Your task to perform on an android device: stop showing notifications on the lock screen Image 0: 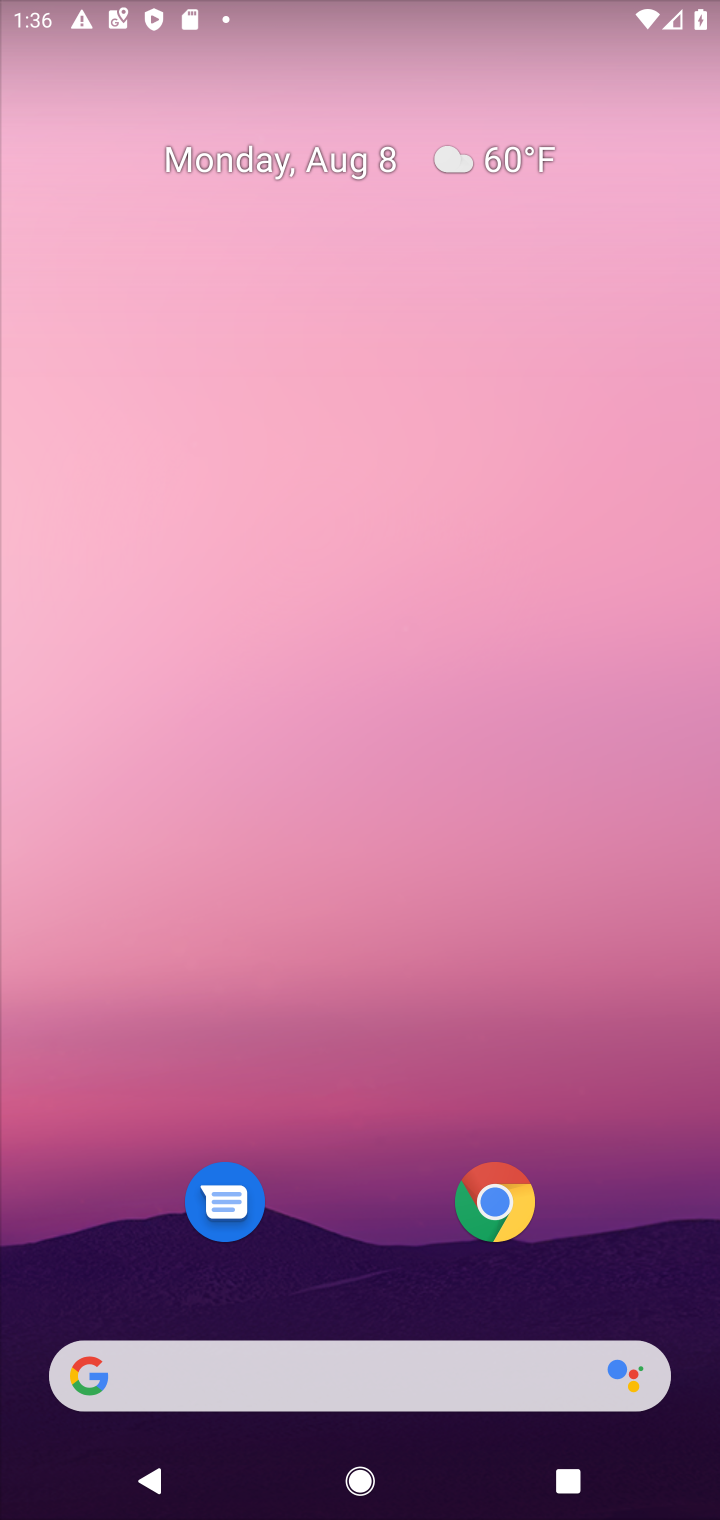
Step 0: press home button
Your task to perform on an android device: stop showing notifications on the lock screen Image 1: 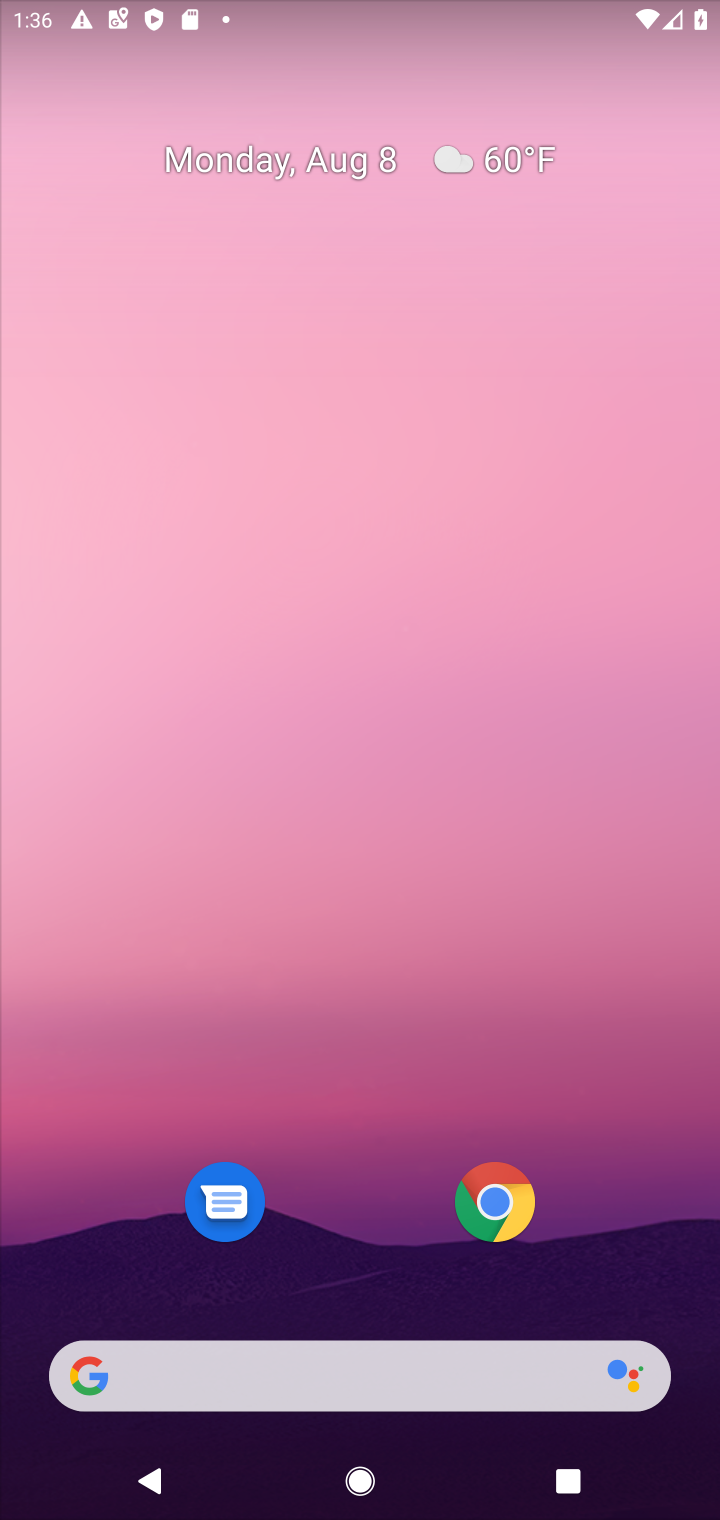
Step 1: drag from (621, 1265) to (637, 355)
Your task to perform on an android device: stop showing notifications on the lock screen Image 2: 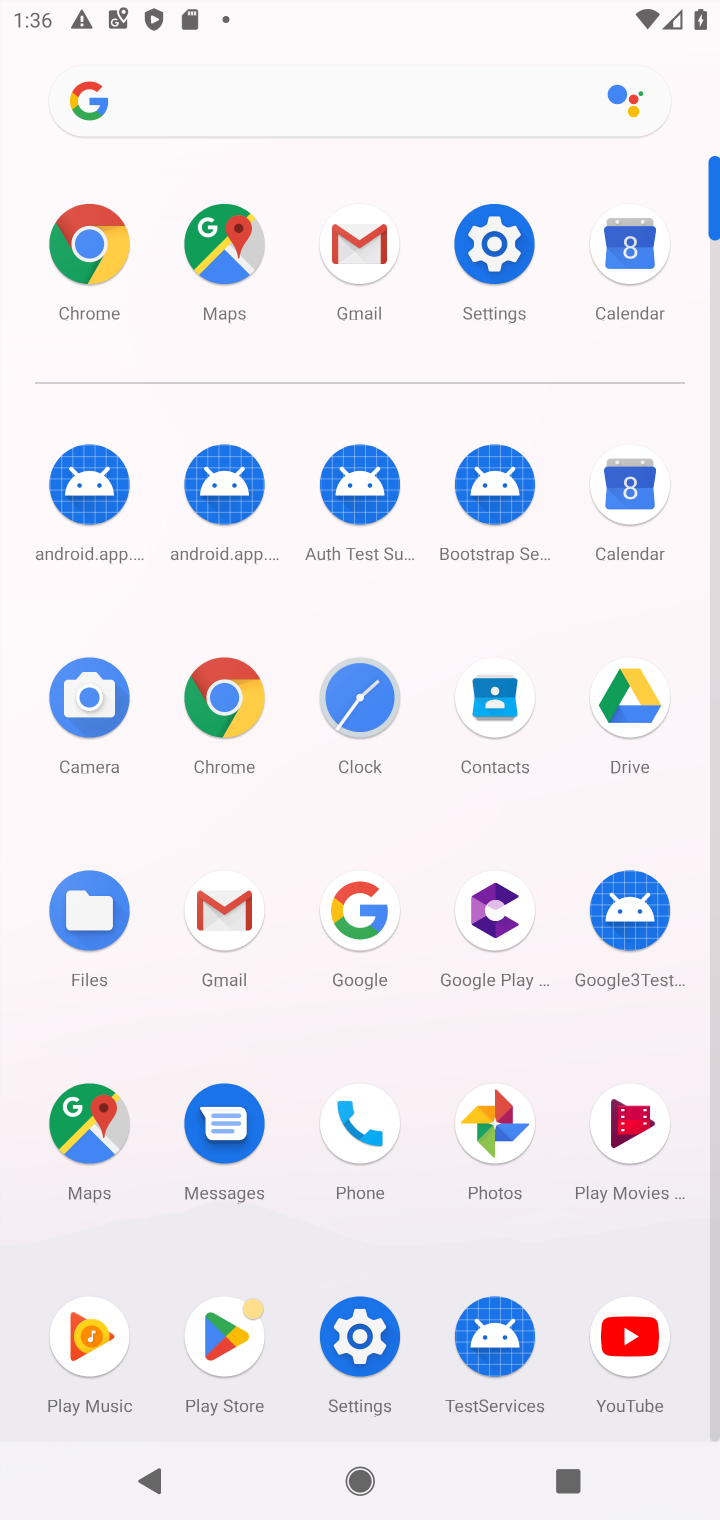
Step 2: click (503, 261)
Your task to perform on an android device: stop showing notifications on the lock screen Image 3: 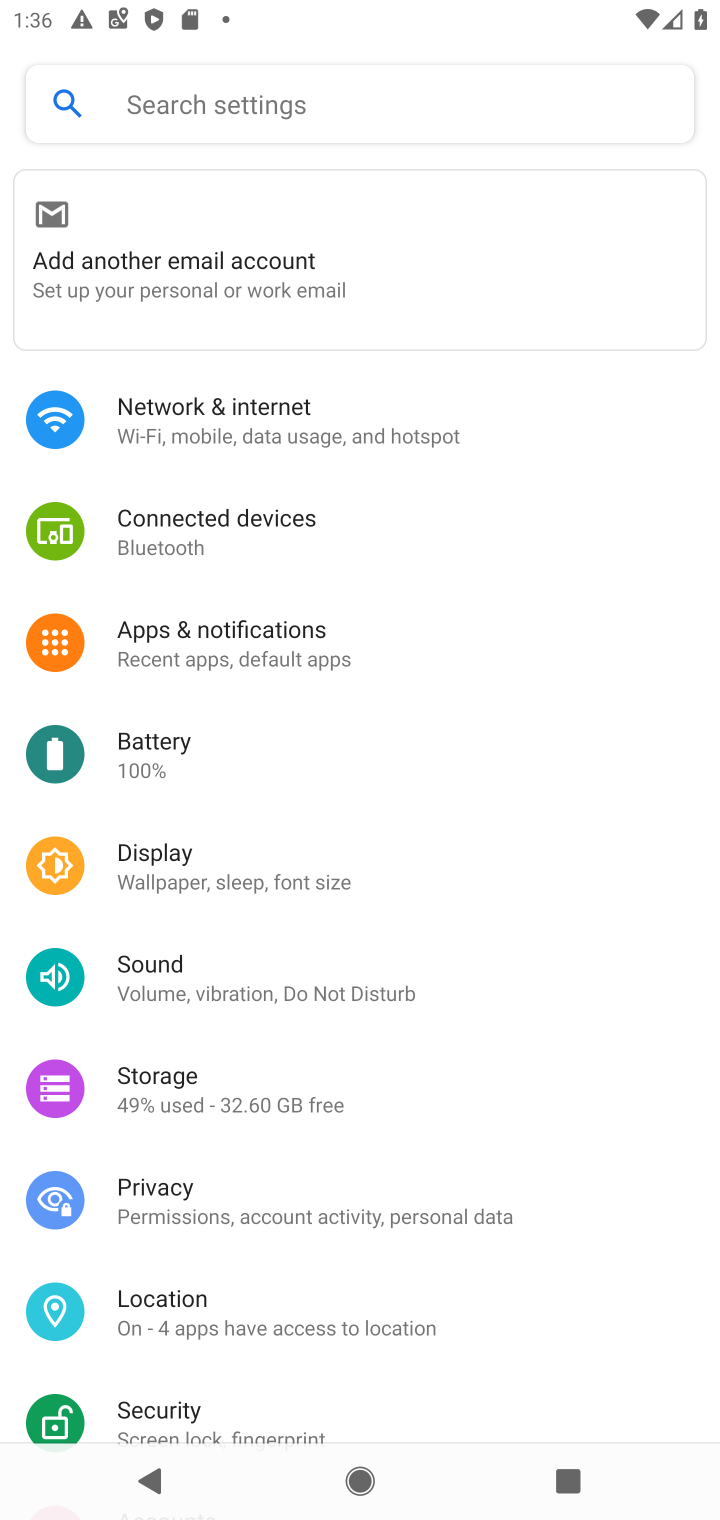
Step 3: drag from (497, 832) to (543, 411)
Your task to perform on an android device: stop showing notifications on the lock screen Image 4: 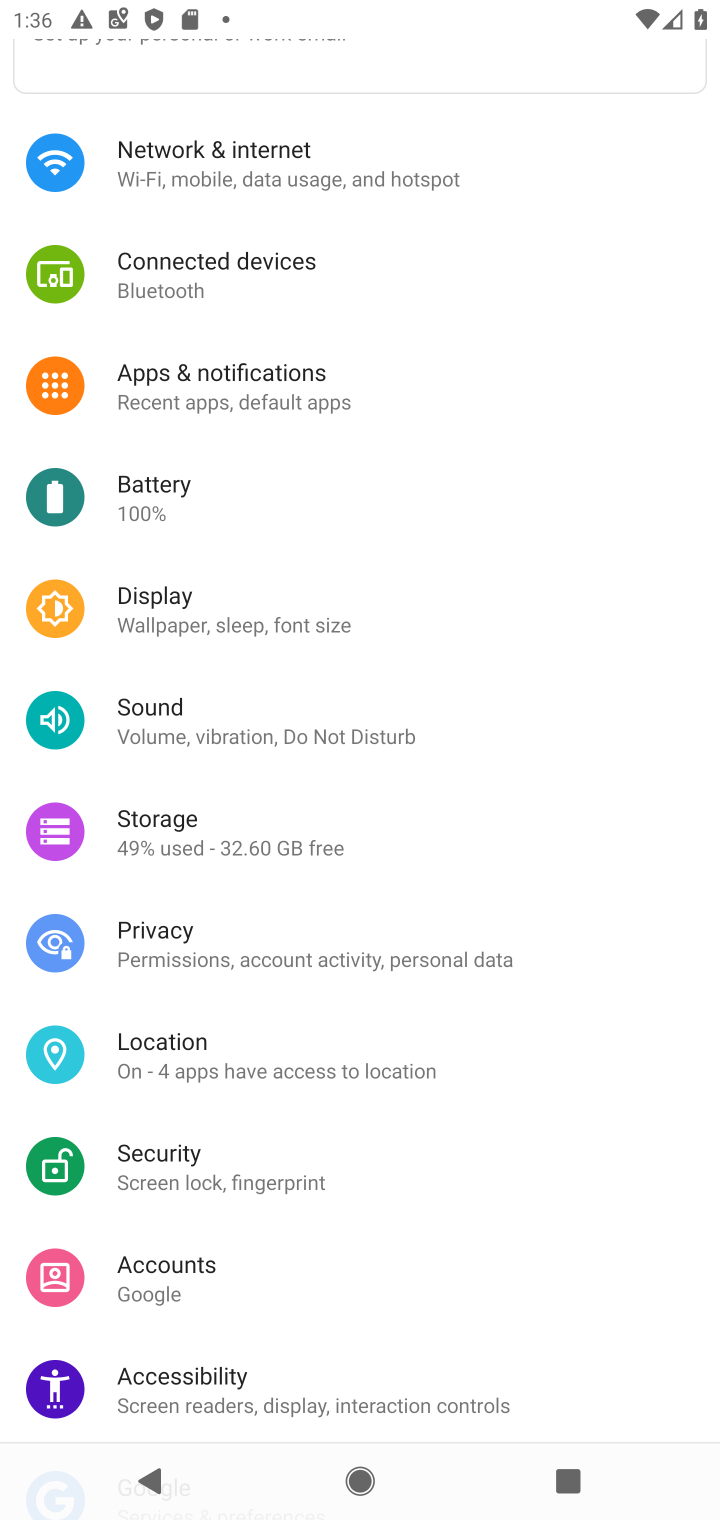
Step 4: click (252, 406)
Your task to perform on an android device: stop showing notifications on the lock screen Image 5: 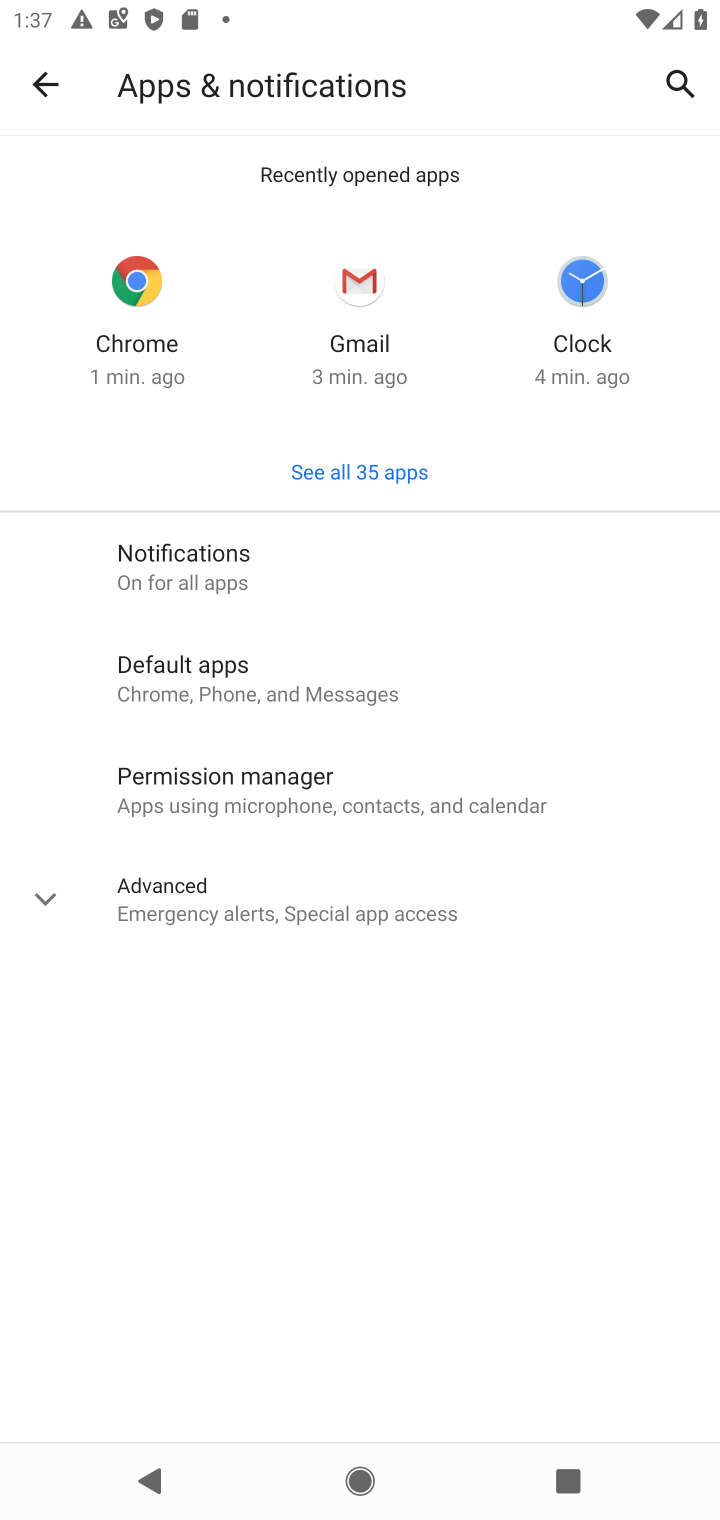
Step 5: click (217, 585)
Your task to perform on an android device: stop showing notifications on the lock screen Image 6: 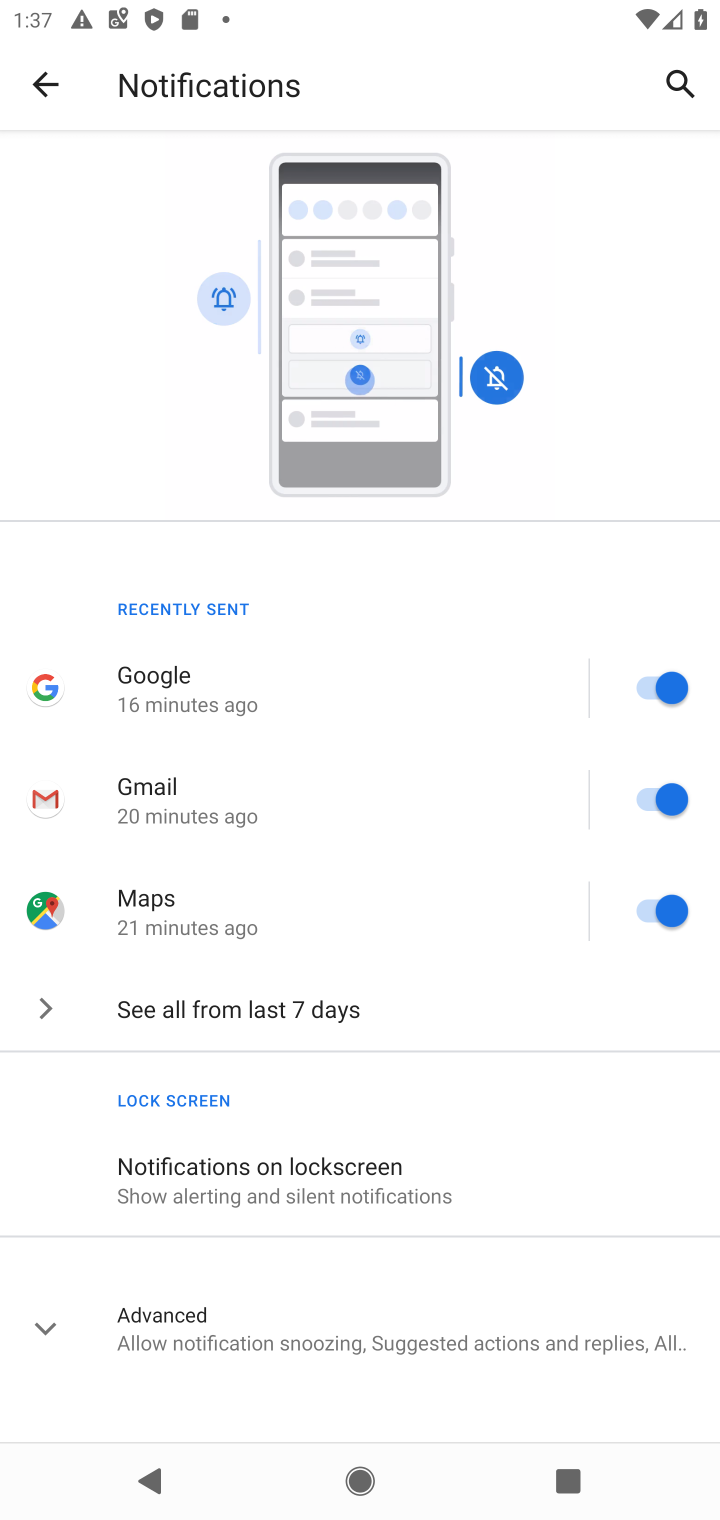
Step 6: click (437, 1219)
Your task to perform on an android device: stop showing notifications on the lock screen Image 7: 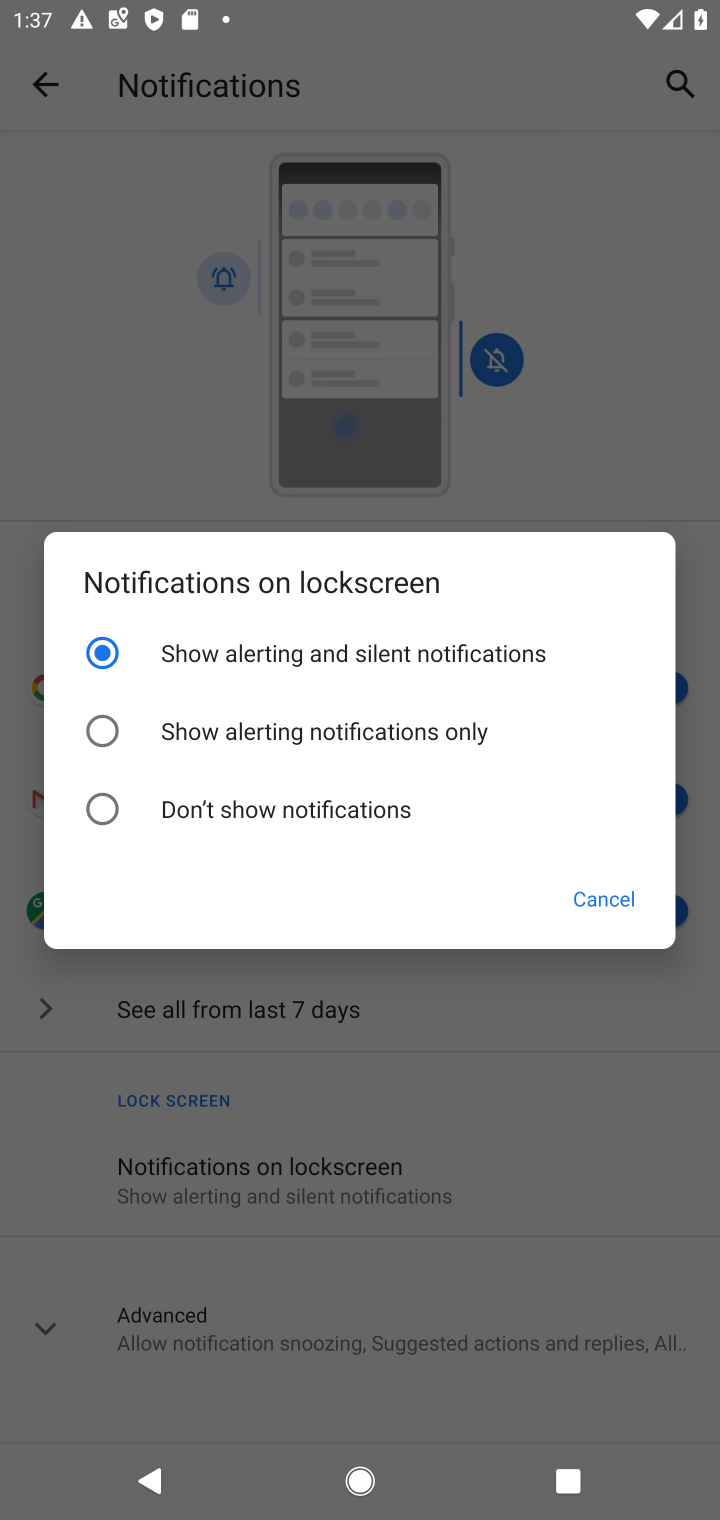
Step 7: click (339, 806)
Your task to perform on an android device: stop showing notifications on the lock screen Image 8: 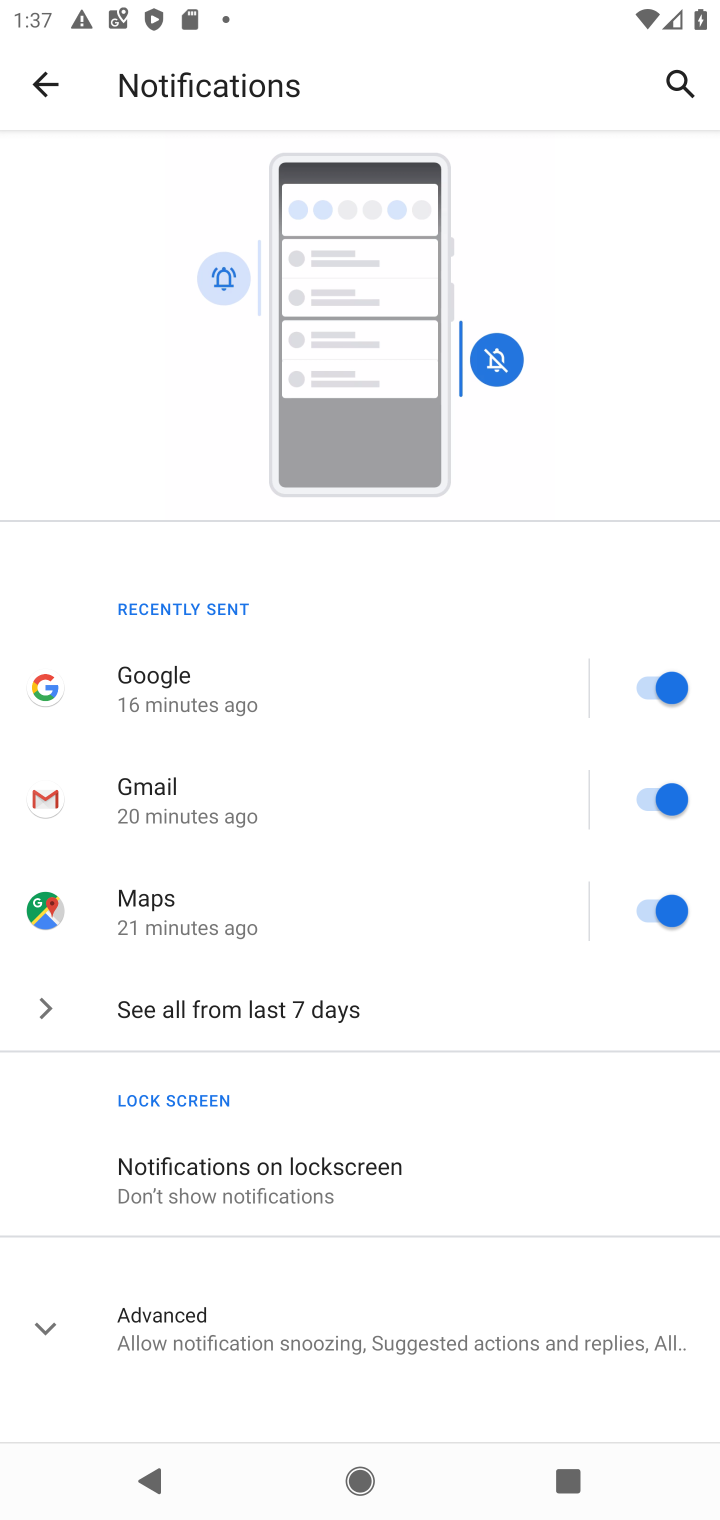
Step 8: task complete